Your task to perform on an android device: Go to notification settings Image 0: 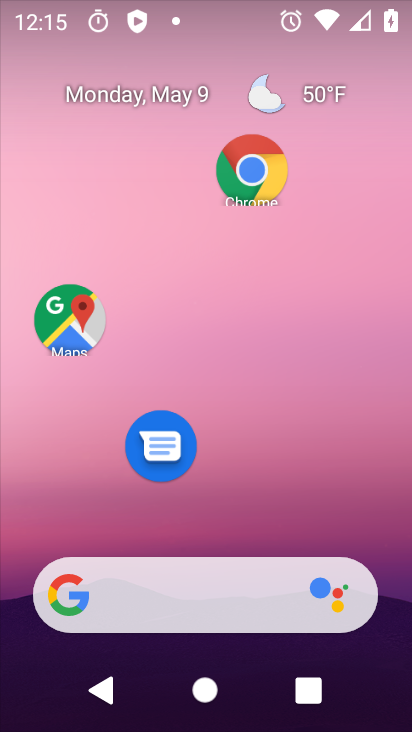
Step 0: drag from (272, 528) to (265, 107)
Your task to perform on an android device: Go to notification settings Image 1: 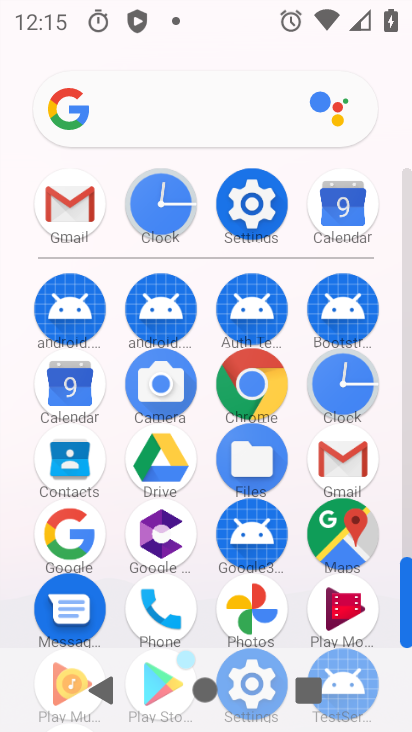
Step 1: click (250, 209)
Your task to perform on an android device: Go to notification settings Image 2: 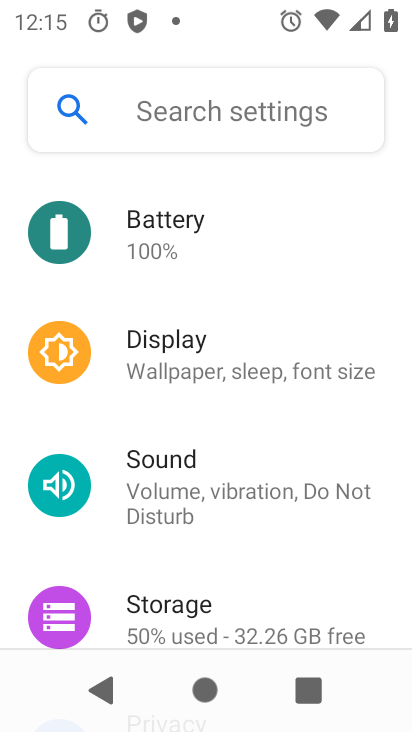
Step 2: drag from (221, 506) to (250, 591)
Your task to perform on an android device: Go to notification settings Image 3: 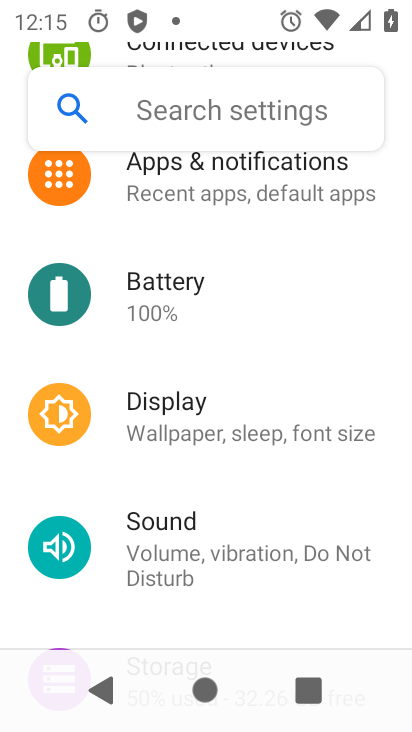
Step 3: drag from (219, 357) to (273, 519)
Your task to perform on an android device: Go to notification settings Image 4: 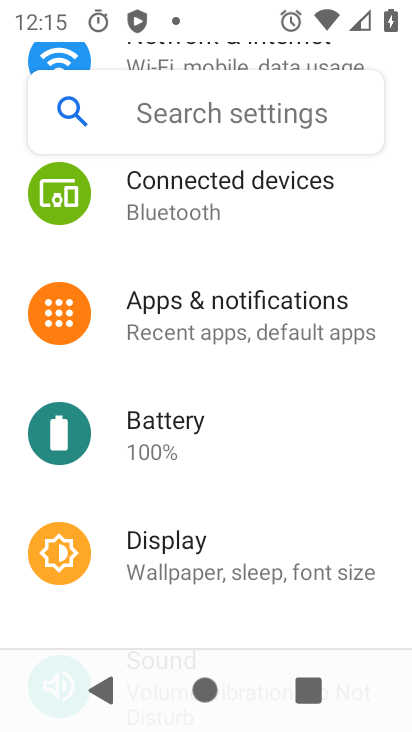
Step 4: click (226, 306)
Your task to perform on an android device: Go to notification settings Image 5: 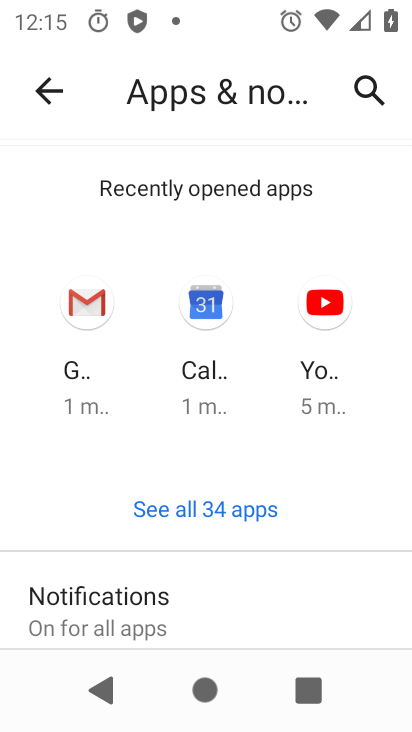
Step 5: click (145, 614)
Your task to perform on an android device: Go to notification settings Image 6: 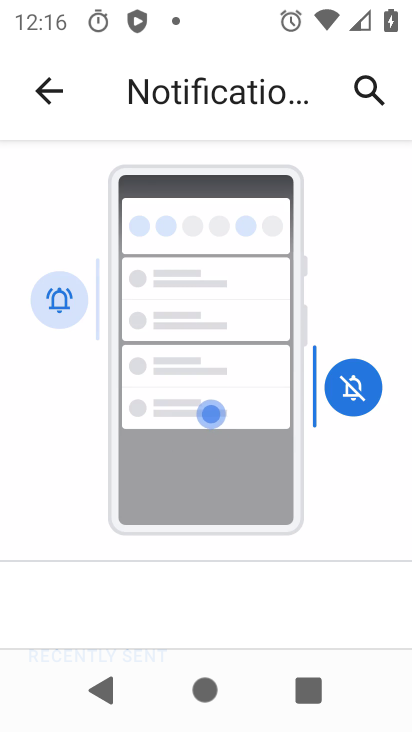
Step 6: task complete